Your task to perform on an android device: Go to accessibility settings Image 0: 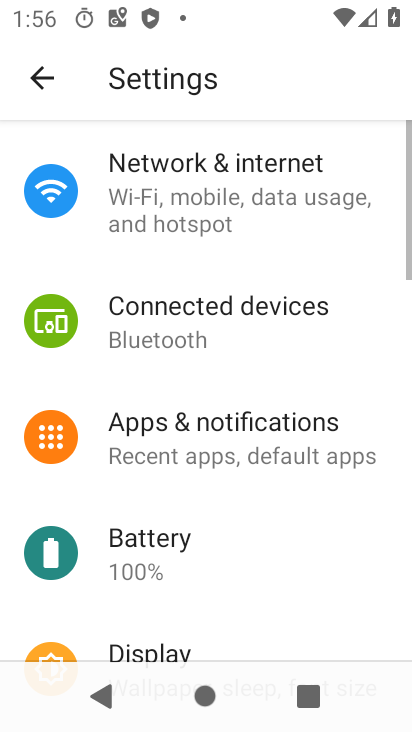
Step 0: drag from (188, 622) to (322, 26)
Your task to perform on an android device: Go to accessibility settings Image 1: 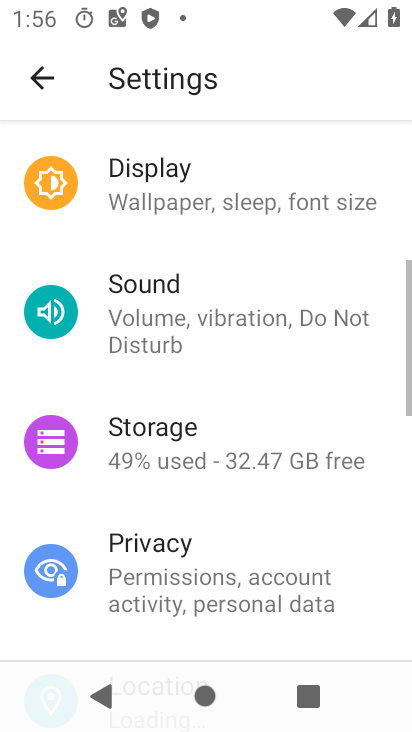
Step 1: drag from (154, 605) to (328, 29)
Your task to perform on an android device: Go to accessibility settings Image 2: 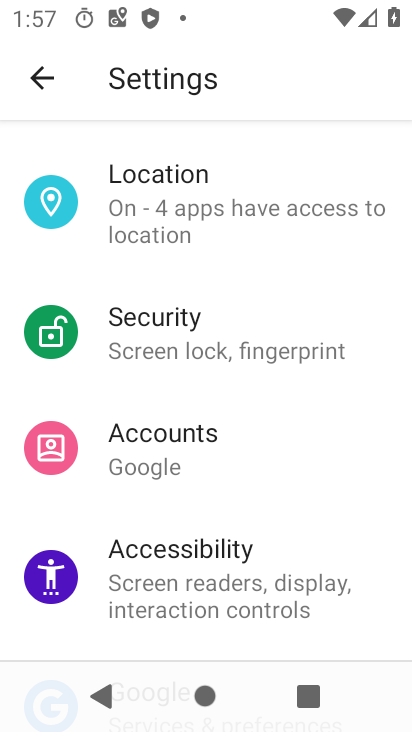
Step 2: click (194, 561)
Your task to perform on an android device: Go to accessibility settings Image 3: 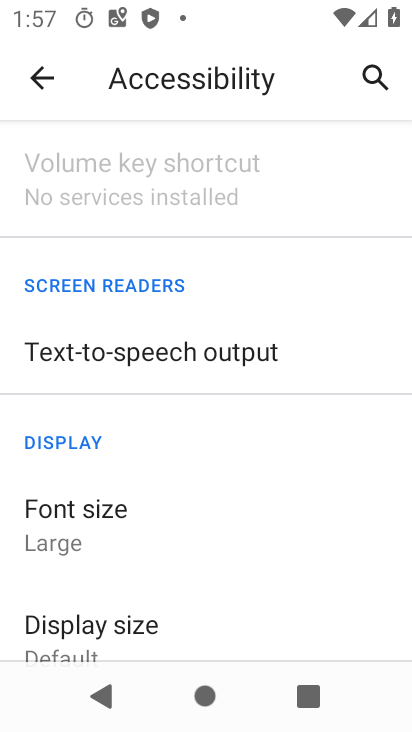
Step 3: task complete